Your task to perform on an android device: turn on airplane mode Image 0: 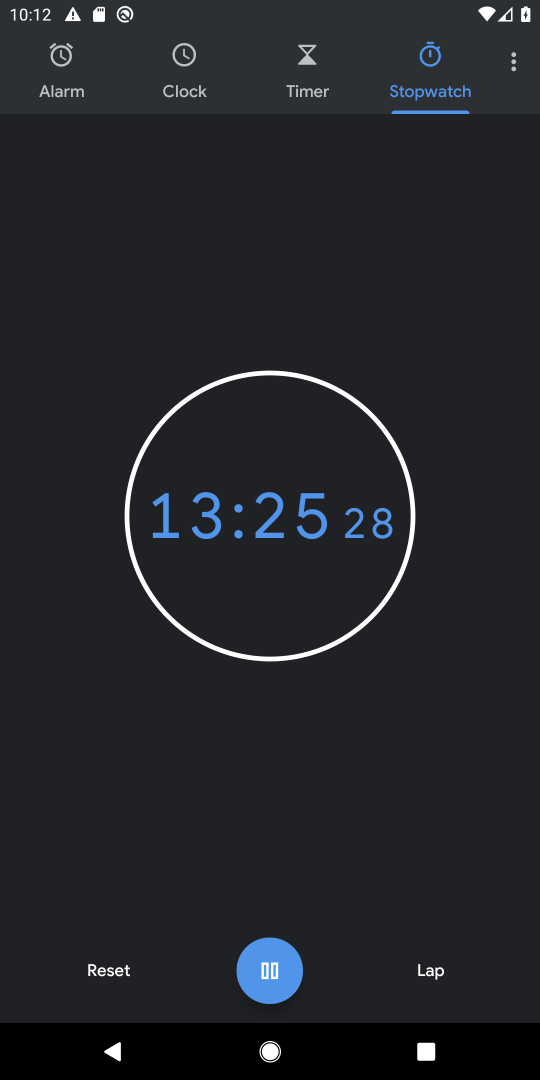
Step 0: click (107, 963)
Your task to perform on an android device: turn on airplane mode Image 1: 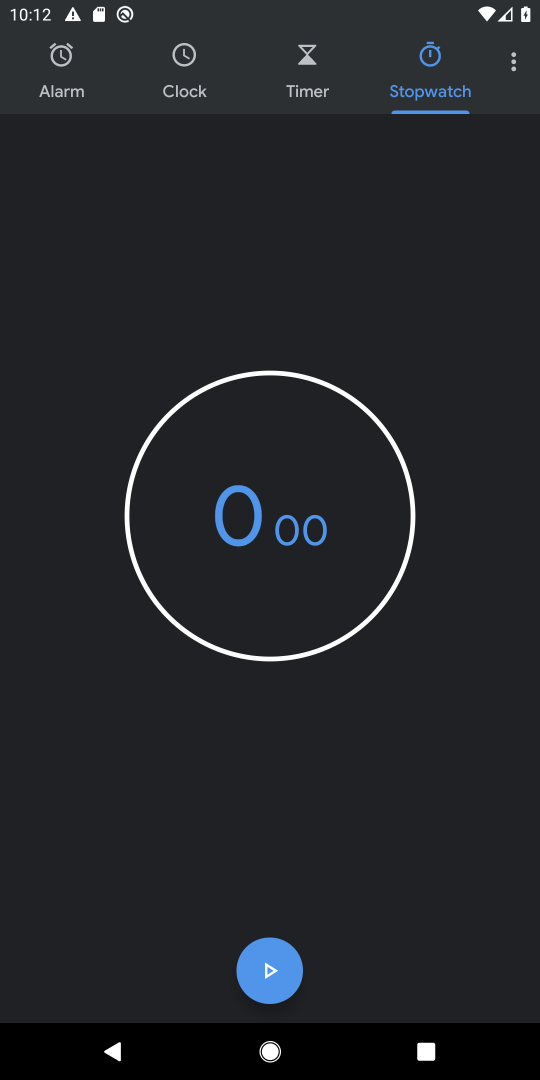
Step 1: press home button
Your task to perform on an android device: turn on airplane mode Image 2: 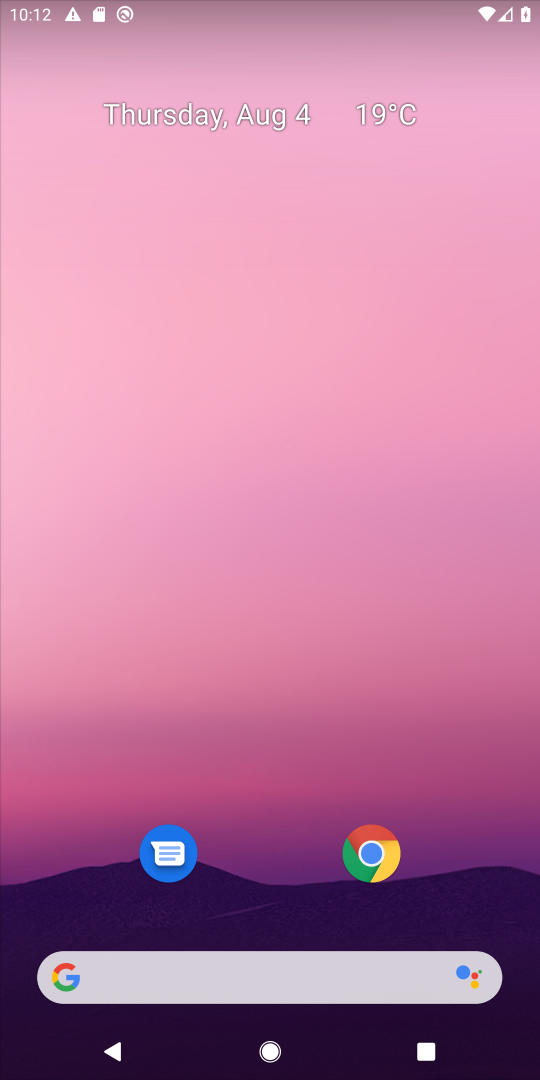
Step 2: drag from (255, 703) to (333, 1)
Your task to perform on an android device: turn on airplane mode Image 3: 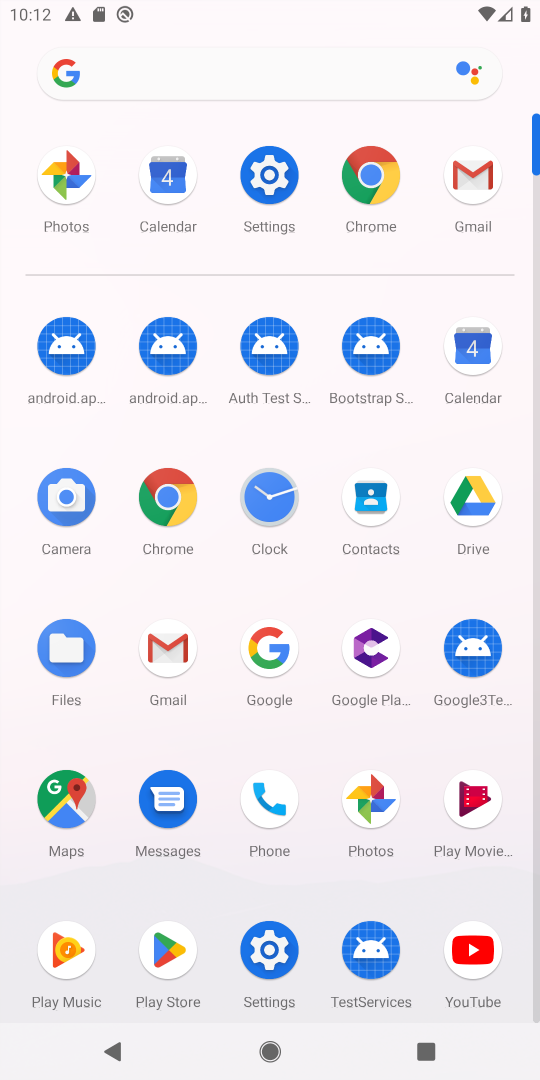
Step 3: click (279, 954)
Your task to perform on an android device: turn on airplane mode Image 4: 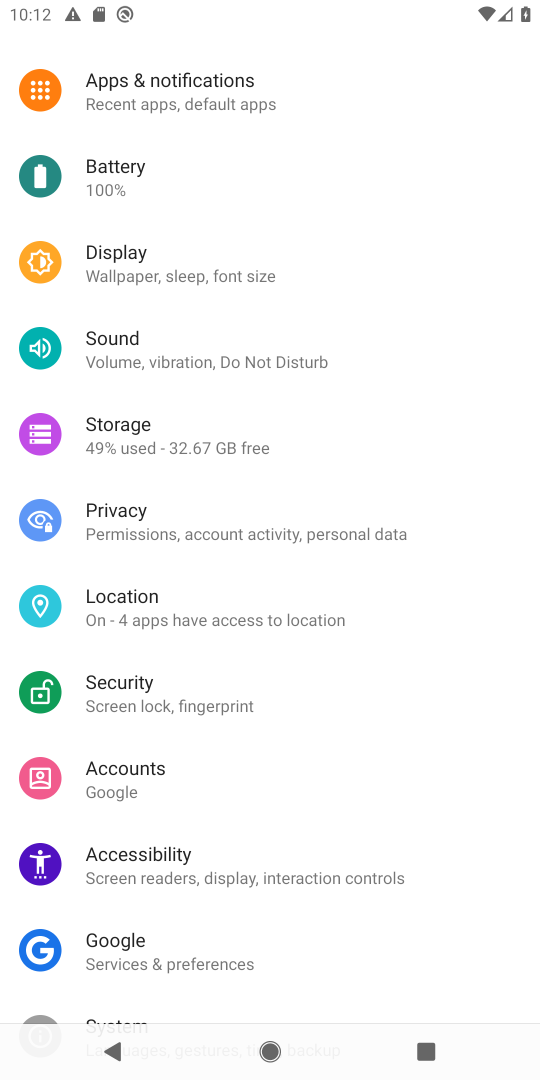
Step 4: drag from (186, 201) to (228, 771)
Your task to perform on an android device: turn on airplane mode Image 5: 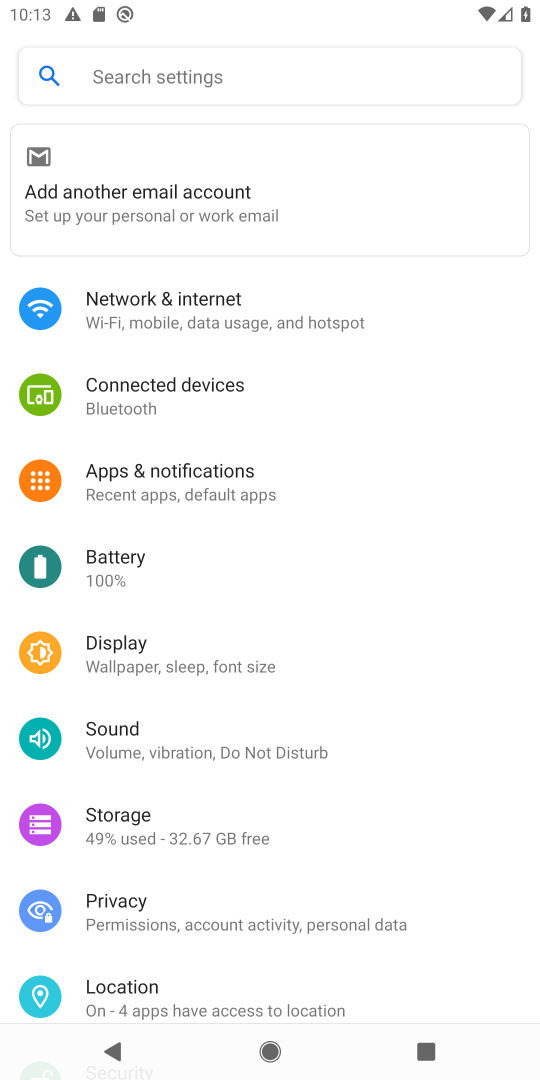
Step 5: drag from (242, 257) to (250, 590)
Your task to perform on an android device: turn on airplane mode Image 6: 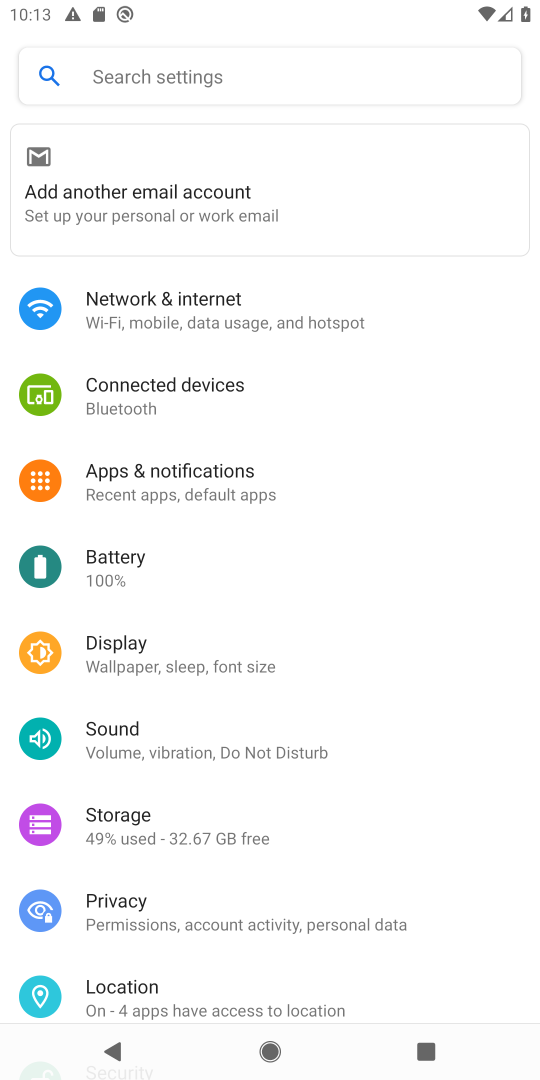
Step 6: click (184, 313)
Your task to perform on an android device: turn on airplane mode Image 7: 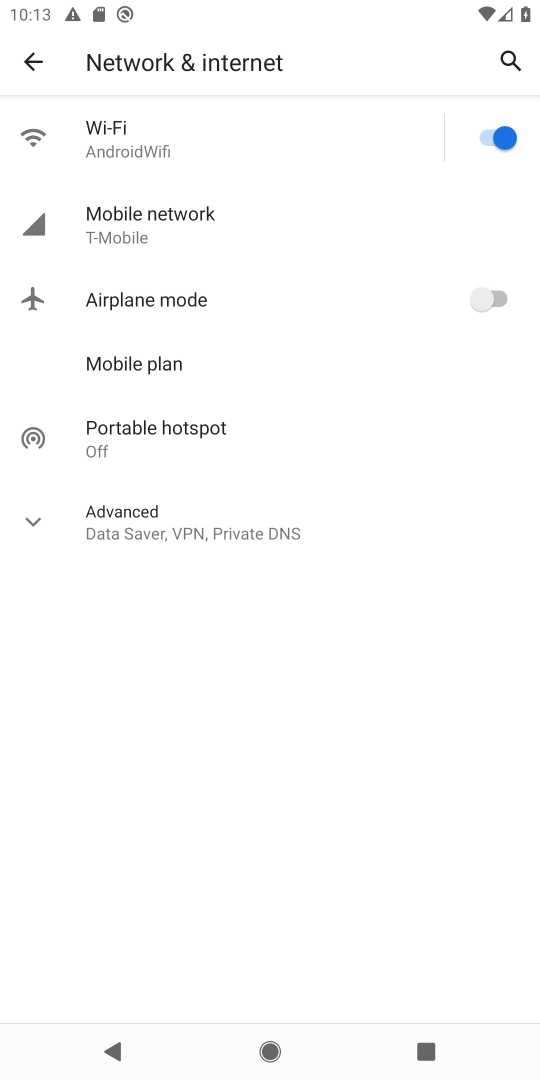
Step 7: click (515, 293)
Your task to perform on an android device: turn on airplane mode Image 8: 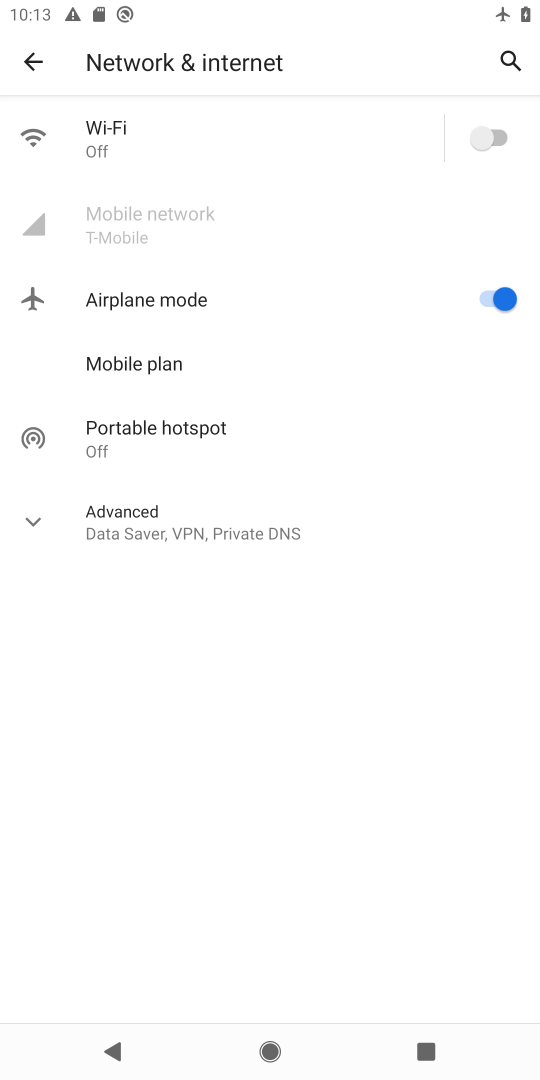
Step 8: task complete